Your task to perform on an android device: open app "Instagram" (install if not already installed) and enter user name: "nobler@yahoo.com" and password: "foraging" Image 0: 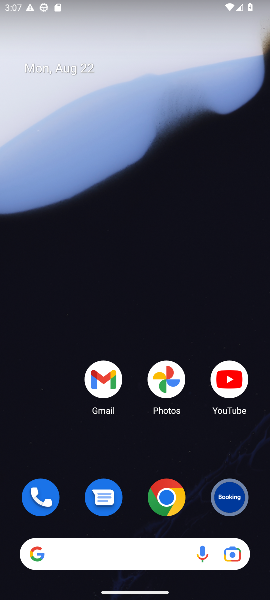
Step 0: drag from (140, 455) to (148, 9)
Your task to perform on an android device: open app "Instagram" (install if not already installed) and enter user name: "nobler@yahoo.com" and password: "foraging" Image 1: 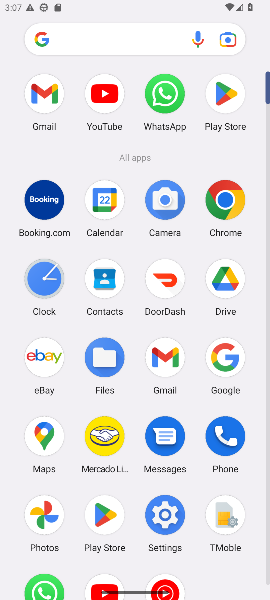
Step 1: click (215, 103)
Your task to perform on an android device: open app "Instagram" (install if not already installed) and enter user name: "nobler@yahoo.com" and password: "foraging" Image 2: 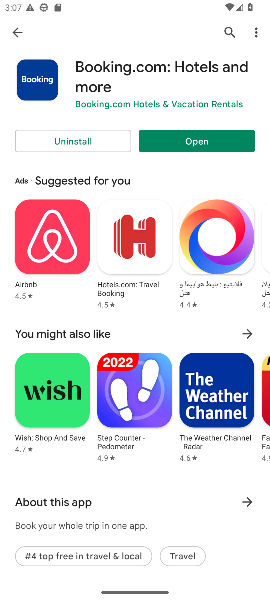
Step 2: click (223, 26)
Your task to perform on an android device: open app "Instagram" (install if not already installed) and enter user name: "nobler@yahoo.com" and password: "foraging" Image 3: 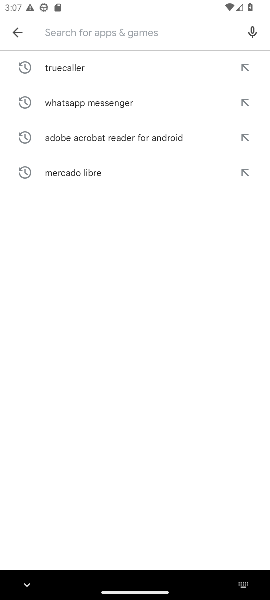
Step 3: type "Instagram"
Your task to perform on an android device: open app "Instagram" (install if not already installed) and enter user name: "nobler@yahoo.com" and password: "foraging" Image 4: 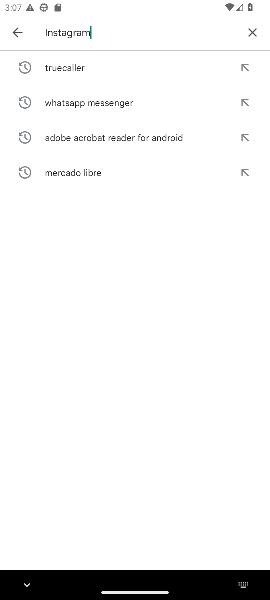
Step 4: type ""
Your task to perform on an android device: open app "Instagram" (install if not already installed) and enter user name: "nobler@yahoo.com" and password: "foraging" Image 5: 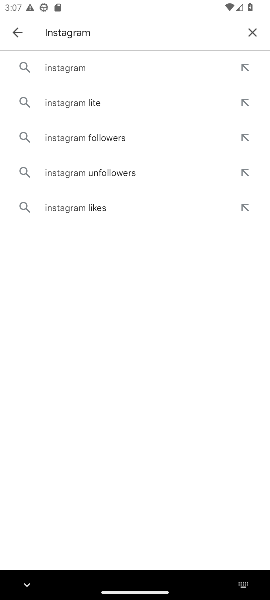
Step 5: click (78, 69)
Your task to perform on an android device: open app "Instagram" (install if not already installed) and enter user name: "nobler@yahoo.com" and password: "foraging" Image 6: 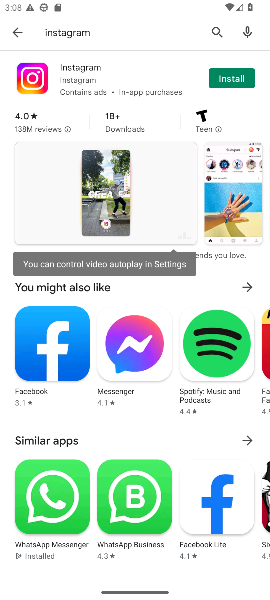
Step 6: click (234, 77)
Your task to perform on an android device: open app "Instagram" (install if not already installed) and enter user name: "nobler@yahoo.com" and password: "foraging" Image 7: 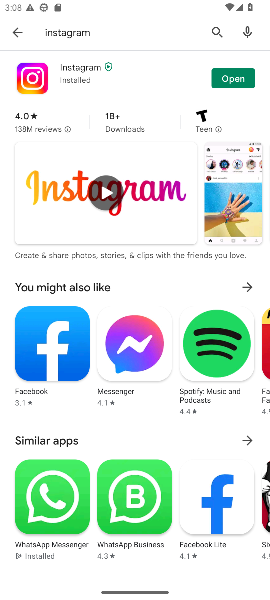
Step 7: click (234, 77)
Your task to perform on an android device: open app "Instagram" (install if not already installed) and enter user name: "nobler@yahoo.com" and password: "foraging" Image 8: 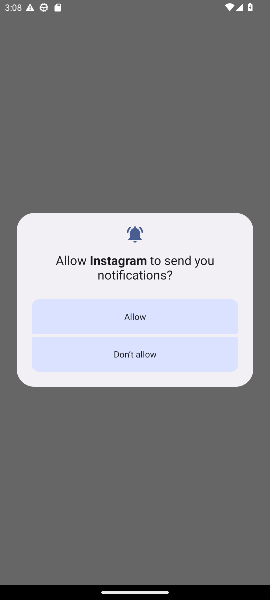
Step 8: click (152, 316)
Your task to perform on an android device: open app "Instagram" (install if not already installed) and enter user name: "nobler@yahoo.com" and password: "foraging" Image 9: 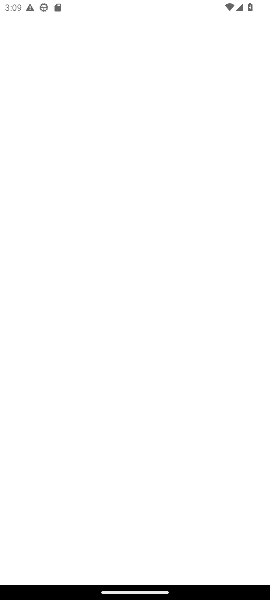
Step 9: task complete